Your task to perform on an android device: turn vacation reply on in the gmail app Image 0: 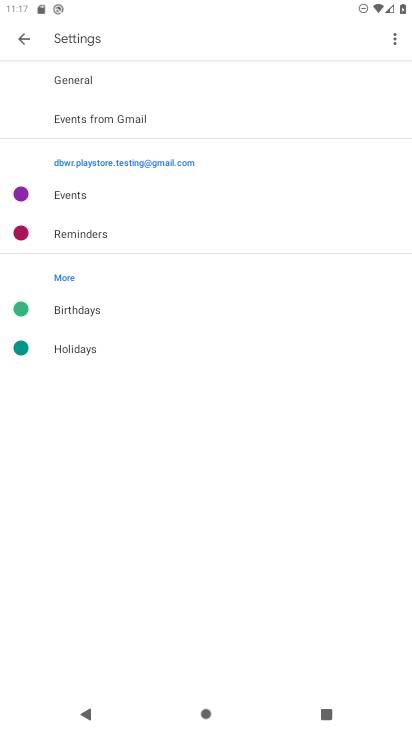
Step 0: press back button
Your task to perform on an android device: turn vacation reply on in the gmail app Image 1: 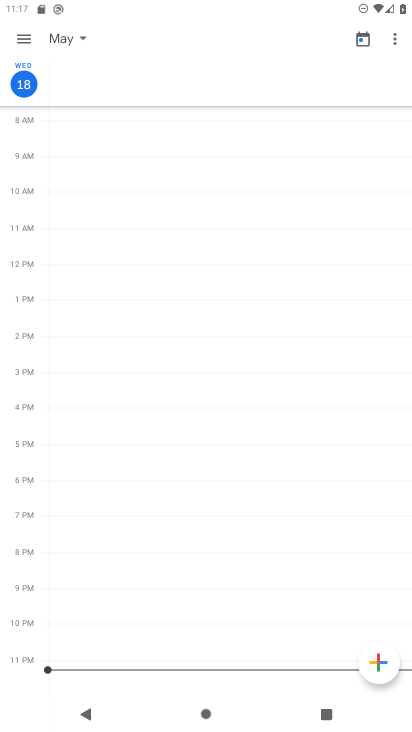
Step 1: press back button
Your task to perform on an android device: turn vacation reply on in the gmail app Image 2: 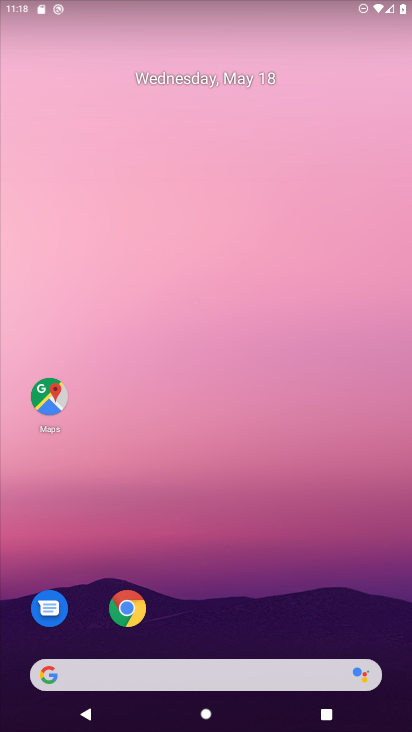
Step 2: drag from (238, 587) to (192, 151)
Your task to perform on an android device: turn vacation reply on in the gmail app Image 3: 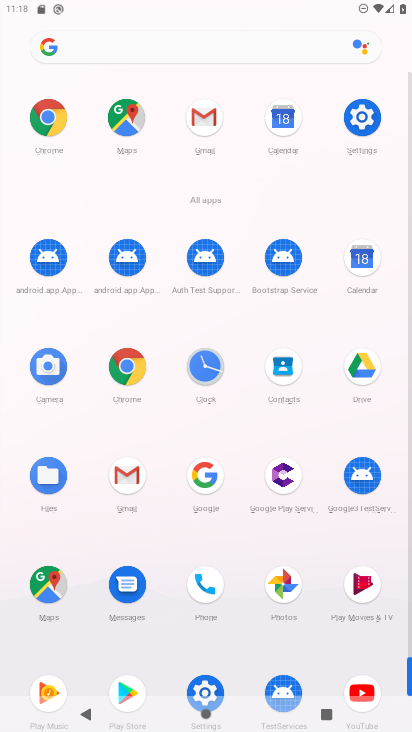
Step 3: click (204, 118)
Your task to perform on an android device: turn vacation reply on in the gmail app Image 4: 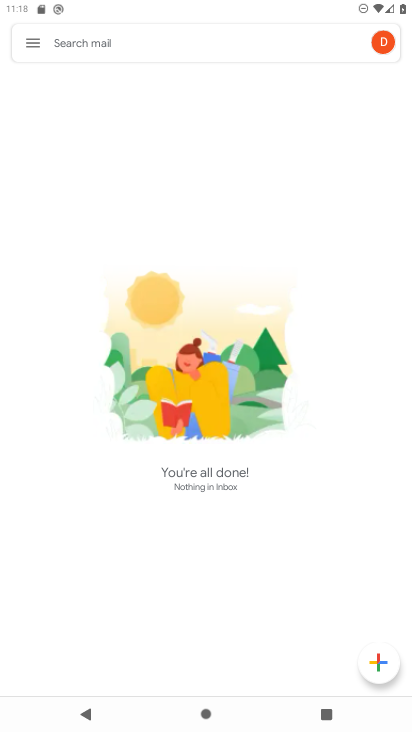
Step 4: click (36, 45)
Your task to perform on an android device: turn vacation reply on in the gmail app Image 5: 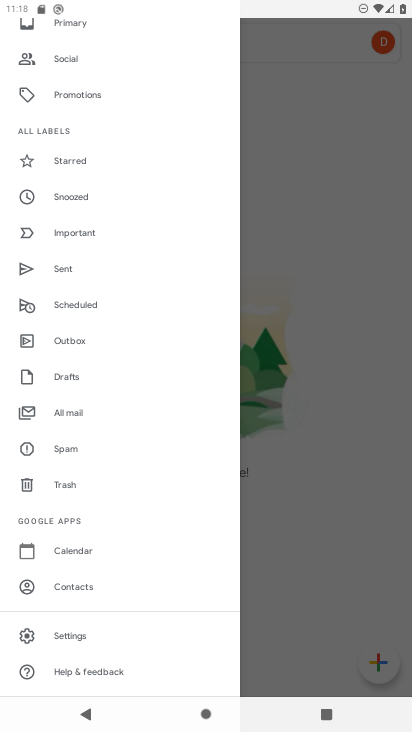
Step 5: click (75, 635)
Your task to perform on an android device: turn vacation reply on in the gmail app Image 6: 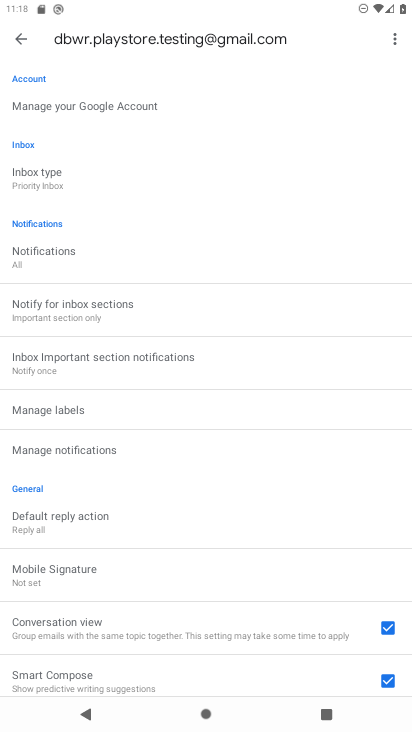
Step 6: drag from (118, 585) to (145, 497)
Your task to perform on an android device: turn vacation reply on in the gmail app Image 7: 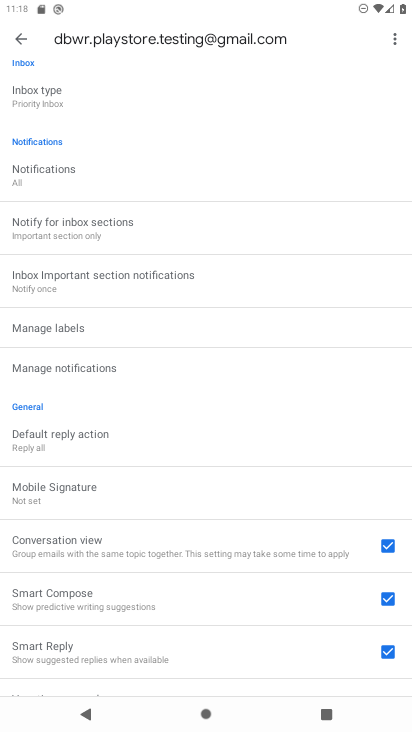
Step 7: drag from (98, 634) to (97, 538)
Your task to perform on an android device: turn vacation reply on in the gmail app Image 8: 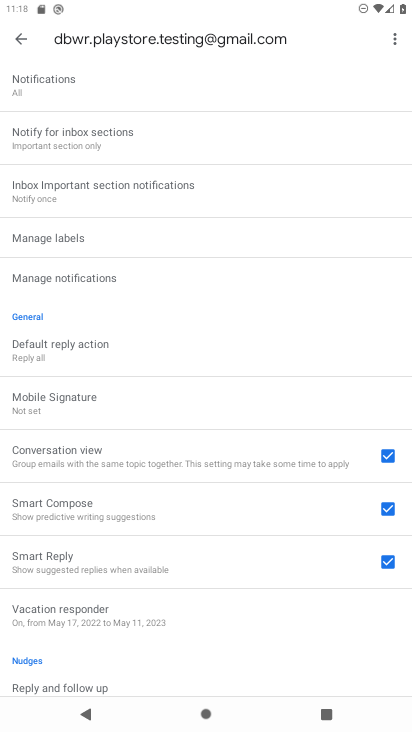
Step 8: click (74, 608)
Your task to perform on an android device: turn vacation reply on in the gmail app Image 9: 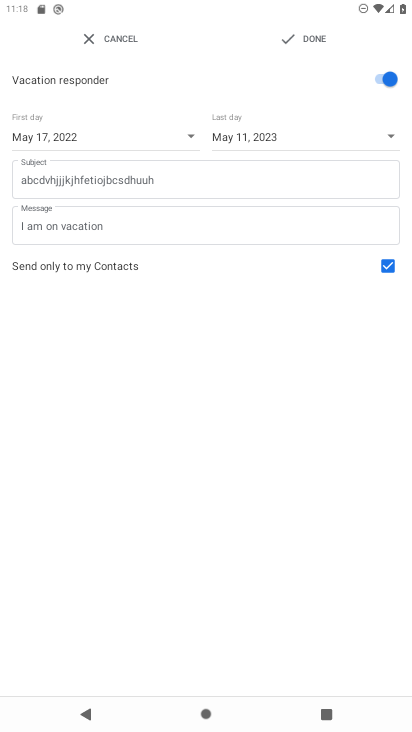
Step 9: task complete